Your task to perform on an android device: change timer sound Image 0: 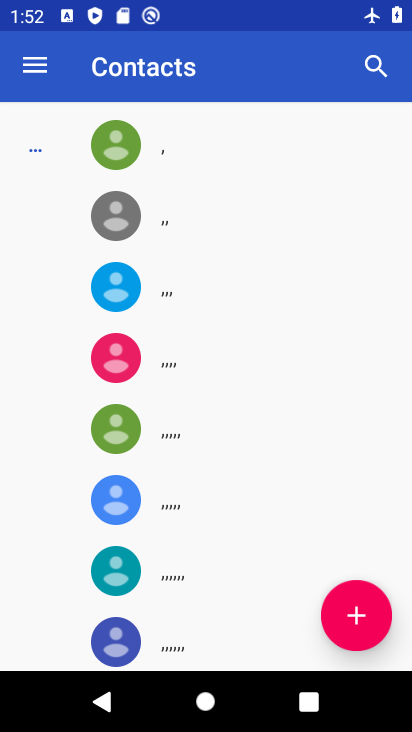
Step 0: press home button
Your task to perform on an android device: change timer sound Image 1: 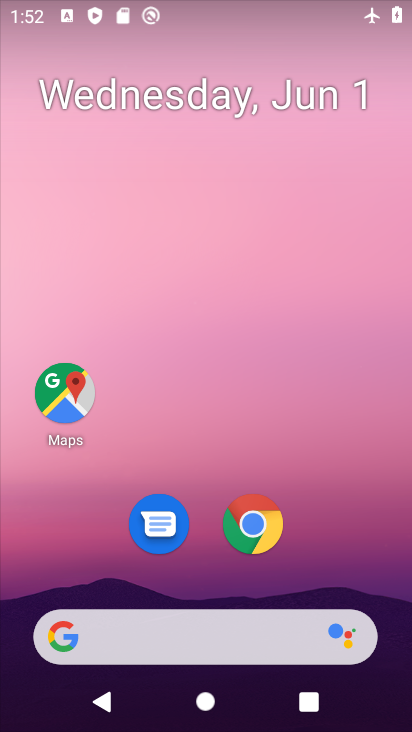
Step 1: drag from (346, 537) to (315, 82)
Your task to perform on an android device: change timer sound Image 2: 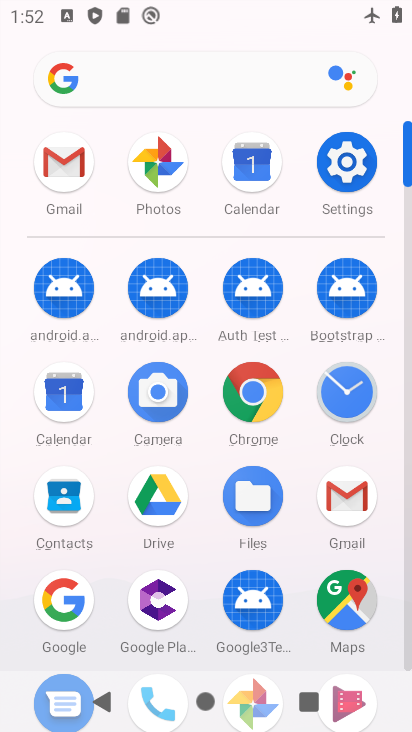
Step 2: click (335, 383)
Your task to perform on an android device: change timer sound Image 3: 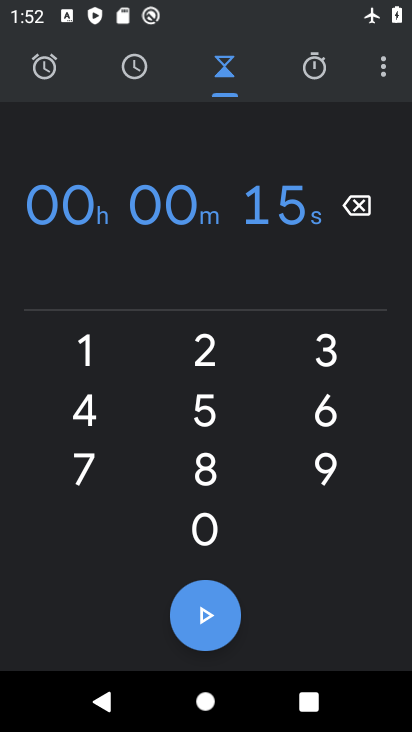
Step 3: click (385, 75)
Your task to perform on an android device: change timer sound Image 4: 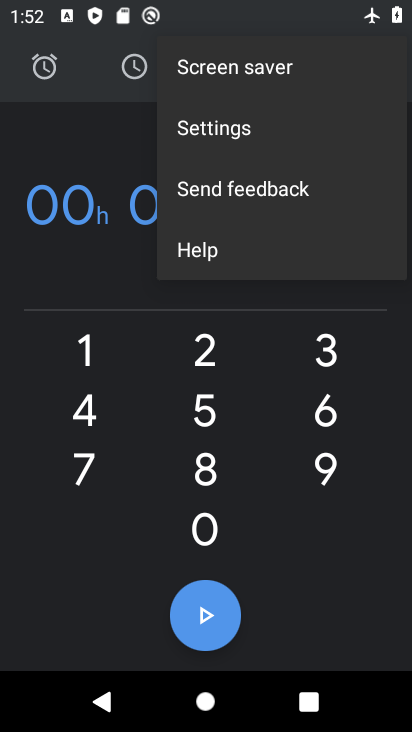
Step 4: click (299, 125)
Your task to perform on an android device: change timer sound Image 5: 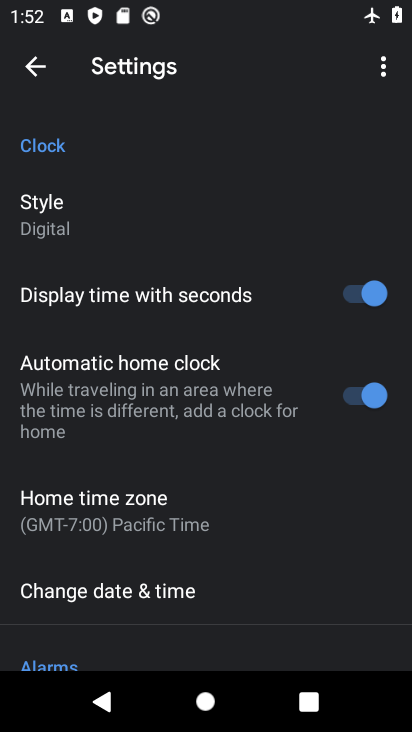
Step 5: drag from (227, 563) to (298, 30)
Your task to perform on an android device: change timer sound Image 6: 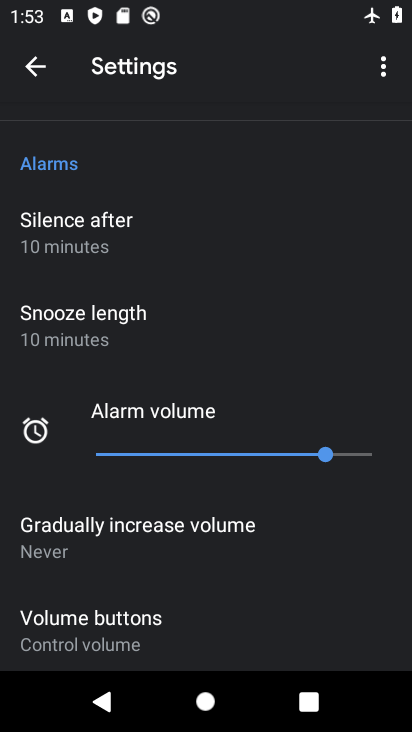
Step 6: drag from (234, 562) to (266, 65)
Your task to perform on an android device: change timer sound Image 7: 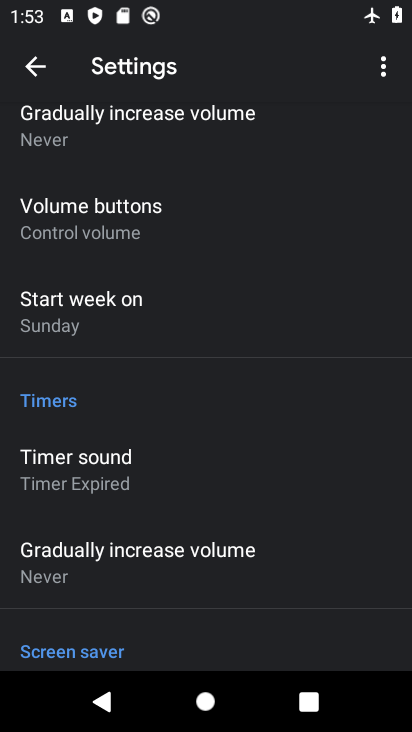
Step 7: click (123, 471)
Your task to perform on an android device: change timer sound Image 8: 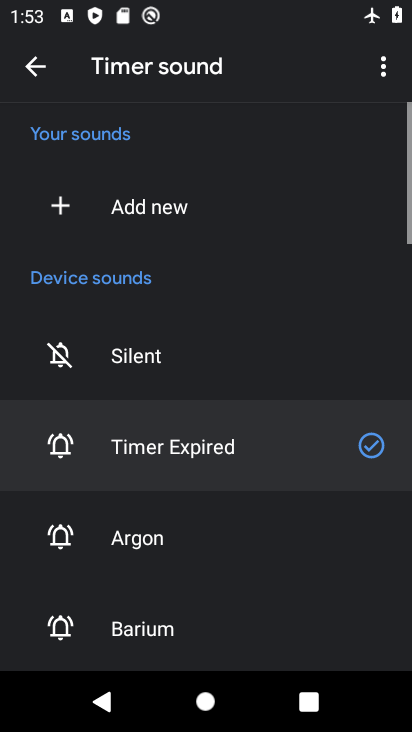
Step 8: click (135, 535)
Your task to perform on an android device: change timer sound Image 9: 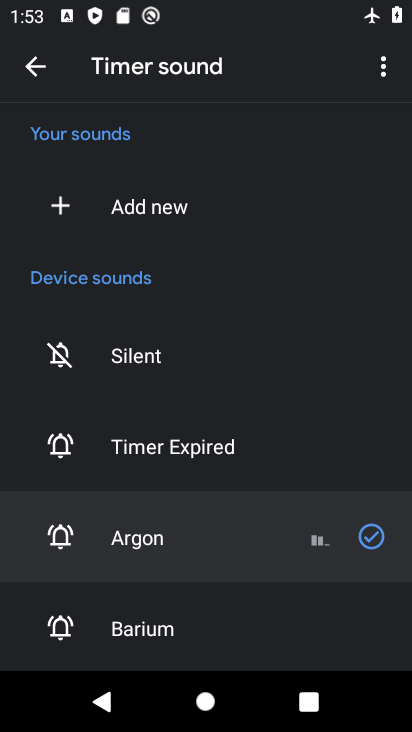
Step 9: task complete